Your task to perform on an android device: uninstall "PlayWell" Image 0: 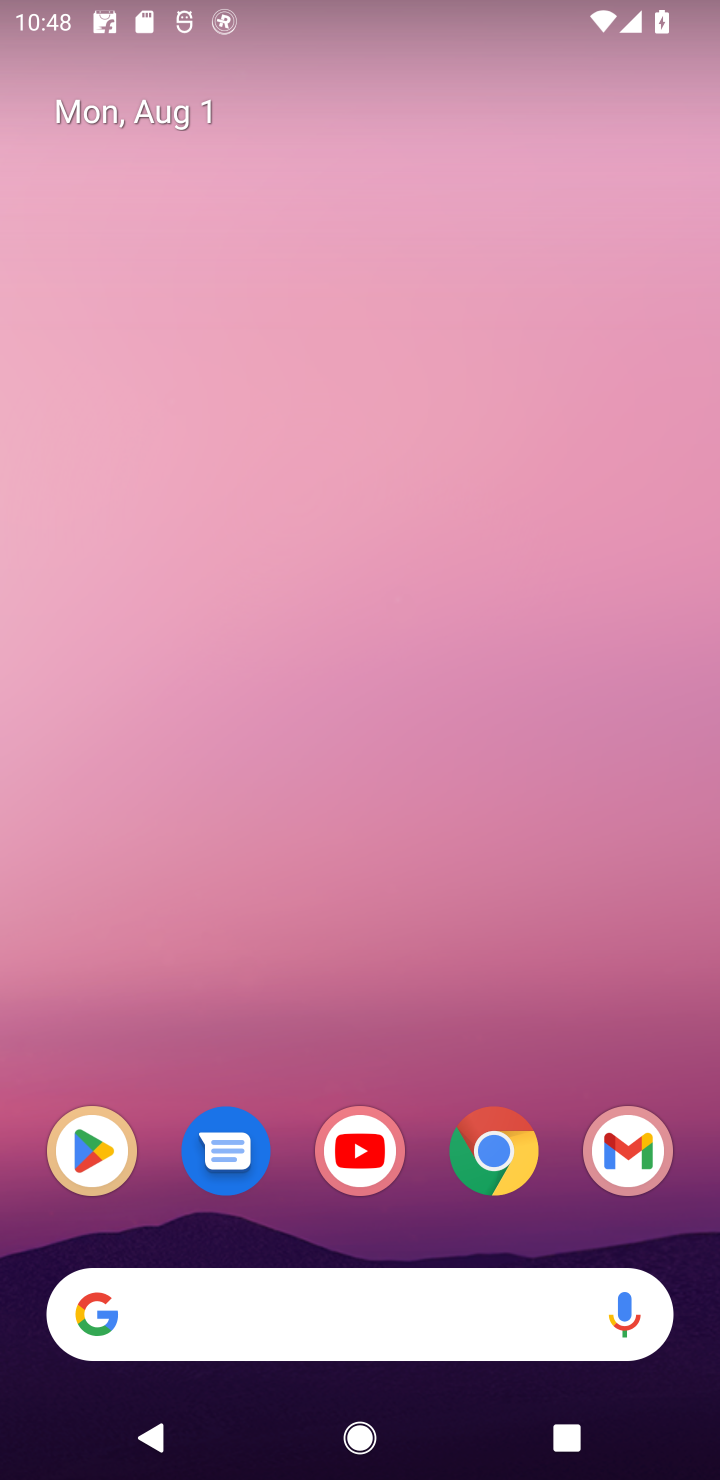
Step 0: click (115, 1148)
Your task to perform on an android device: uninstall "PlayWell" Image 1: 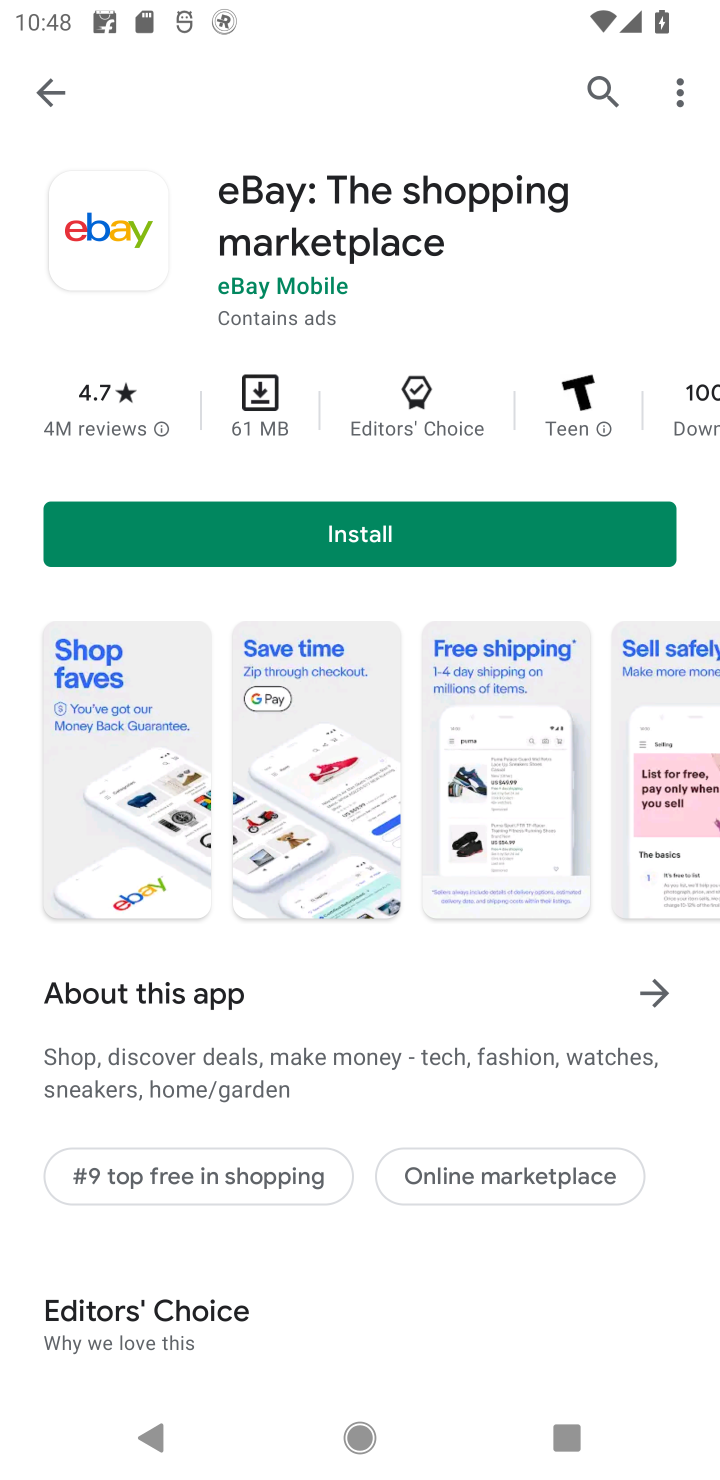
Step 1: click (595, 89)
Your task to perform on an android device: uninstall "PlayWell" Image 2: 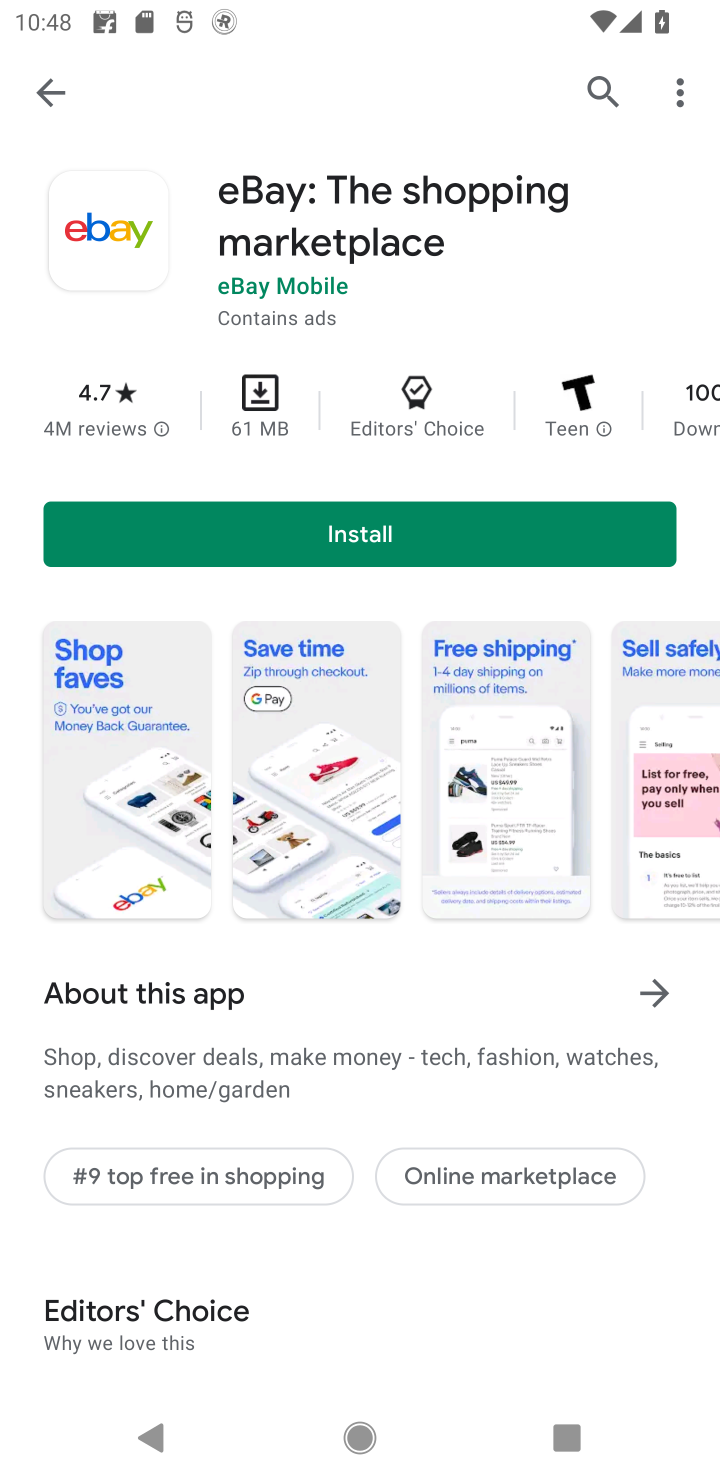
Step 2: click (598, 78)
Your task to perform on an android device: uninstall "PlayWell" Image 3: 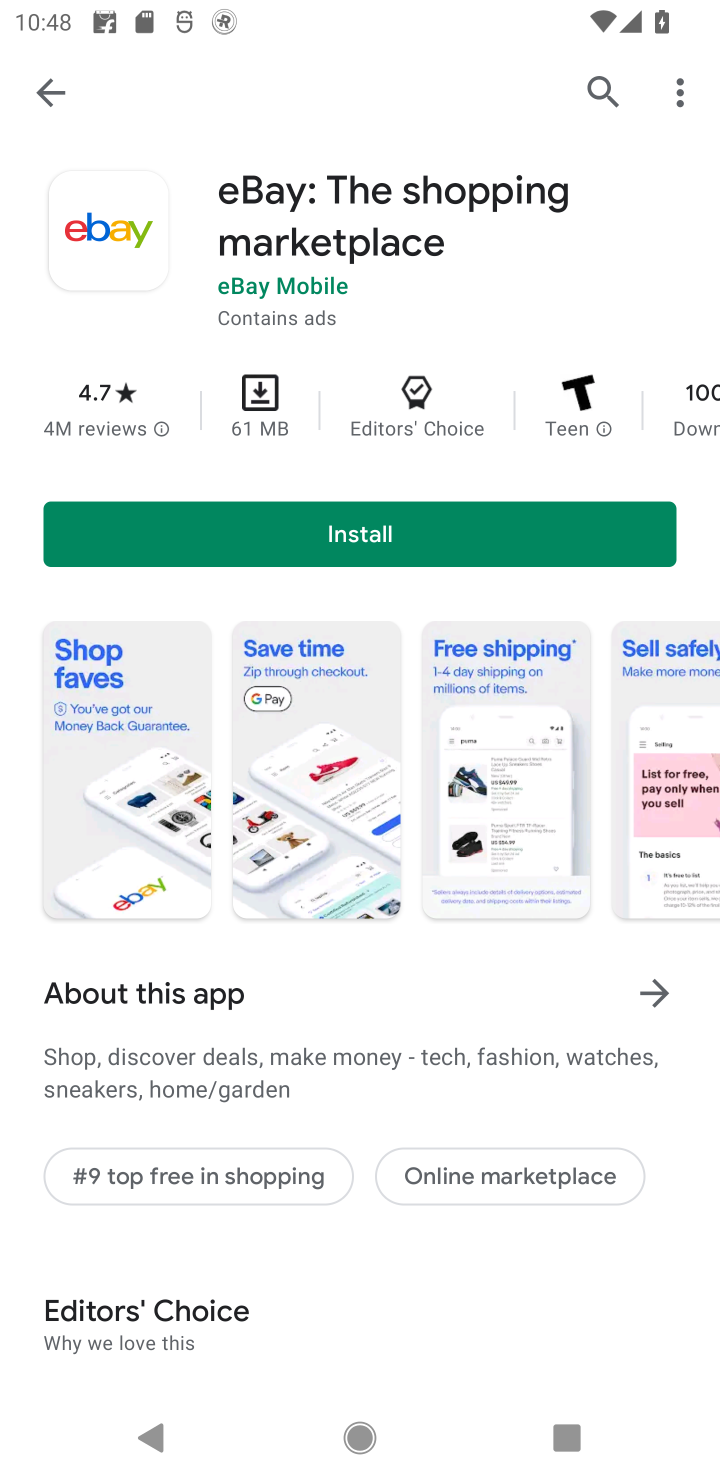
Step 3: click (598, 95)
Your task to perform on an android device: uninstall "PlayWell" Image 4: 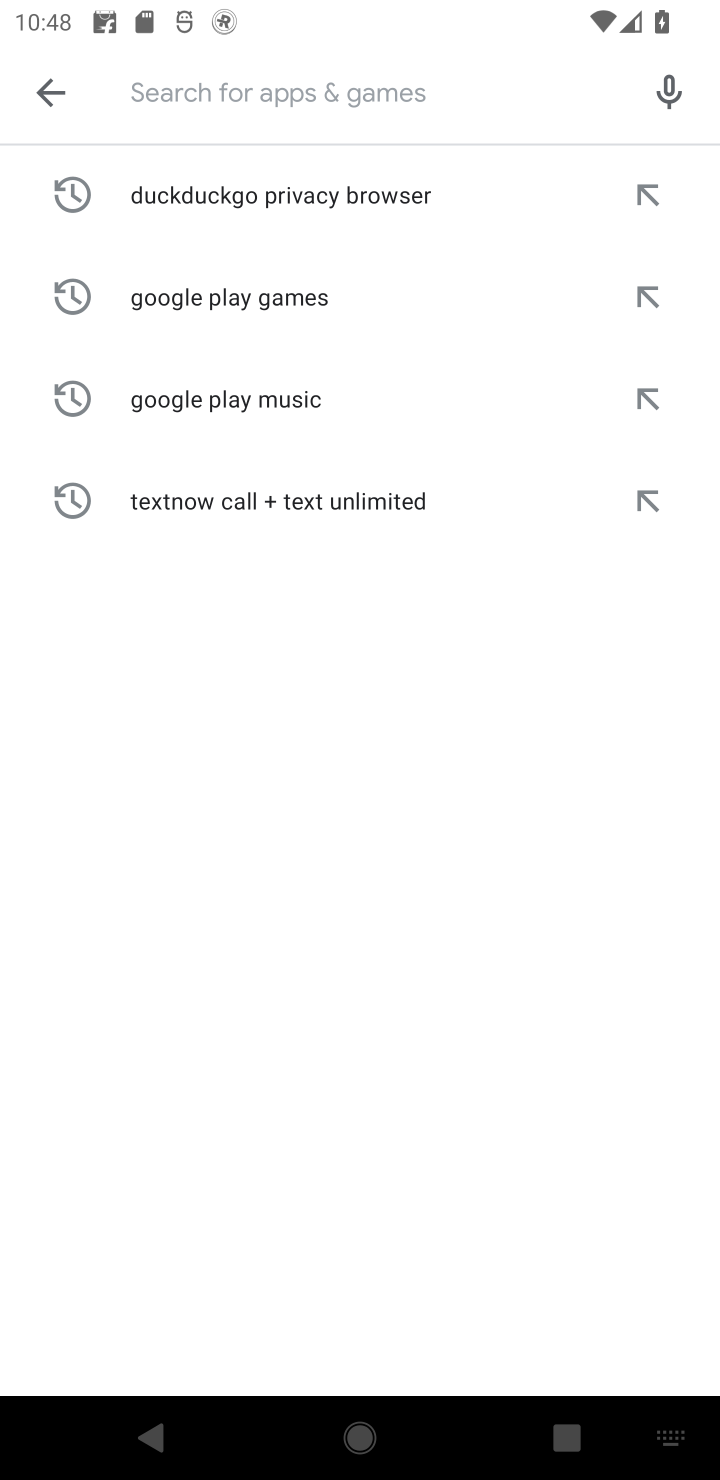
Step 4: type "PlayWell"
Your task to perform on an android device: uninstall "PlayWell" Image 5: 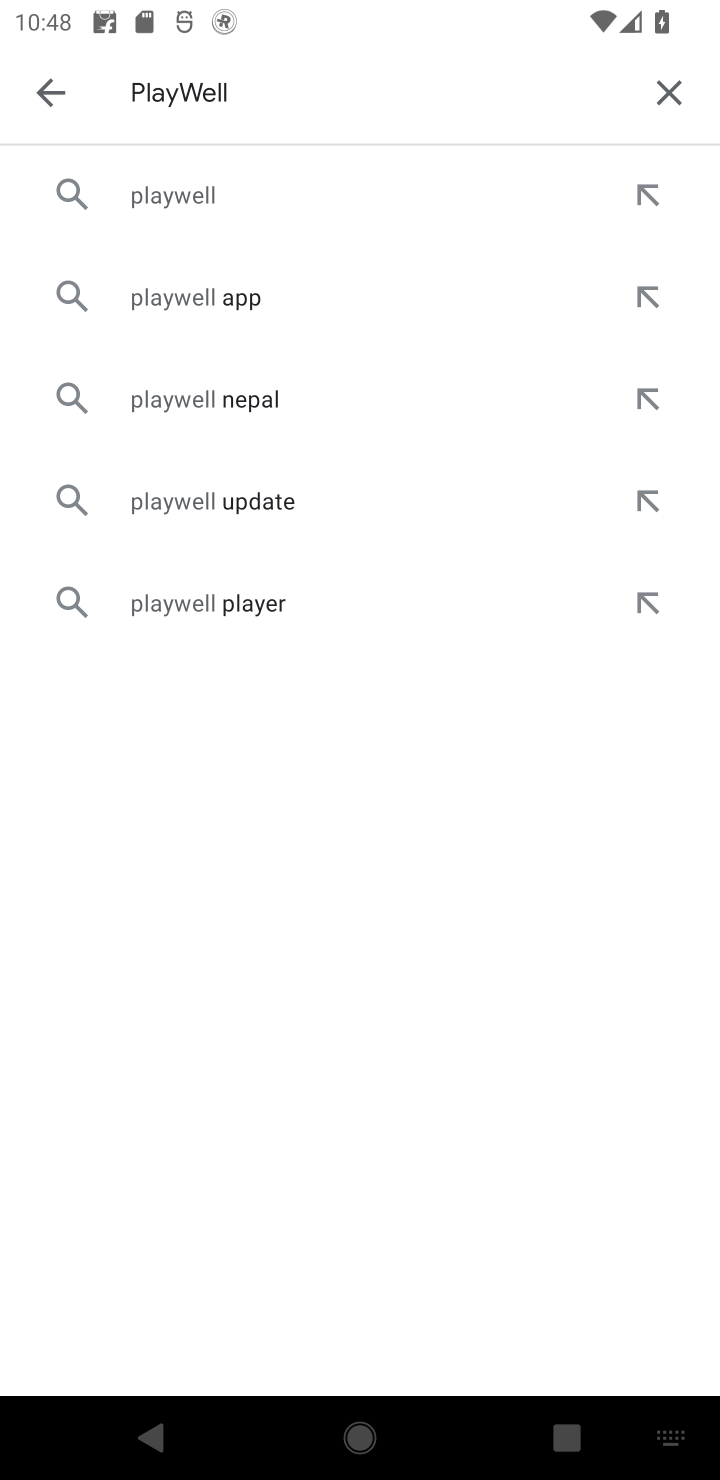
Step 5: click (228, 182)
Your task to perform on an android device: uninstall "PlayWell" Image 6: 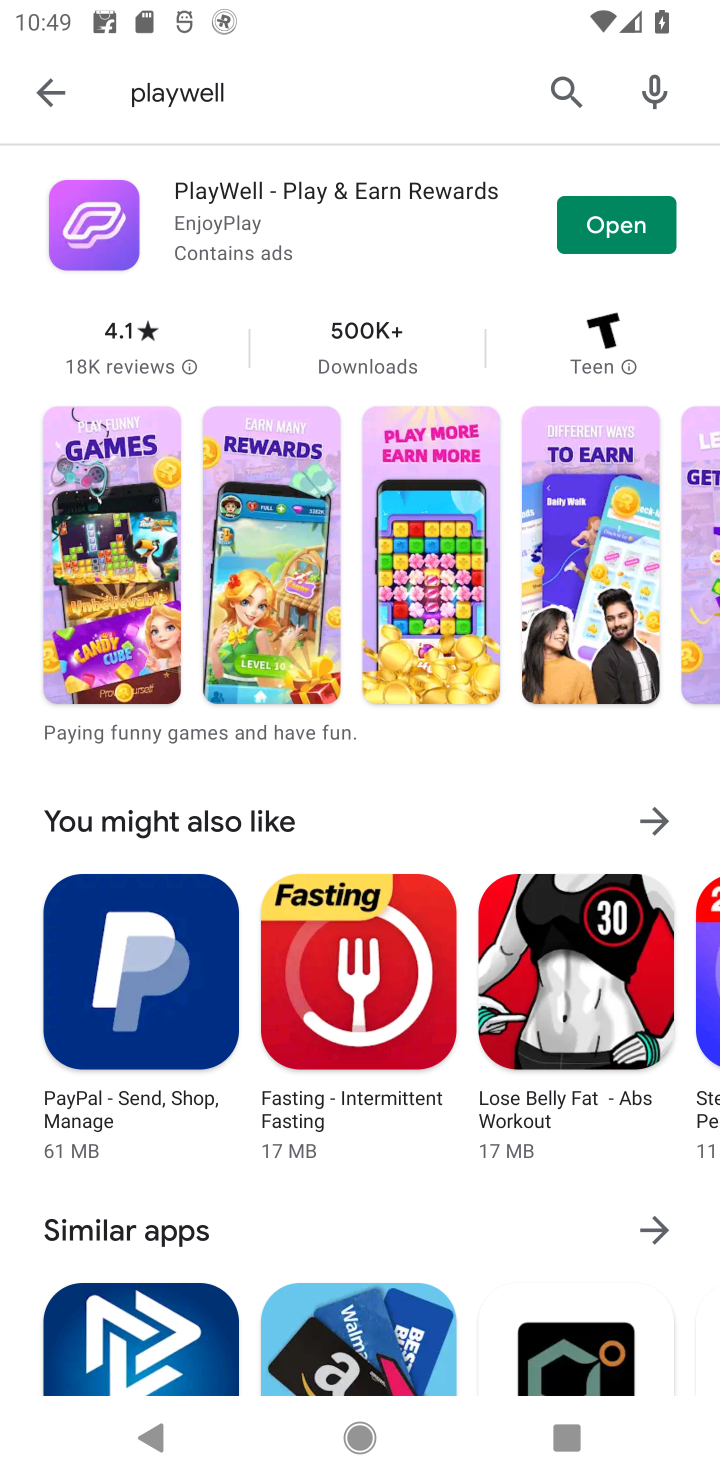
Step 6: click (291, 245)
Your task to perform on an android device: uninstall "PlayWell" Image 7: 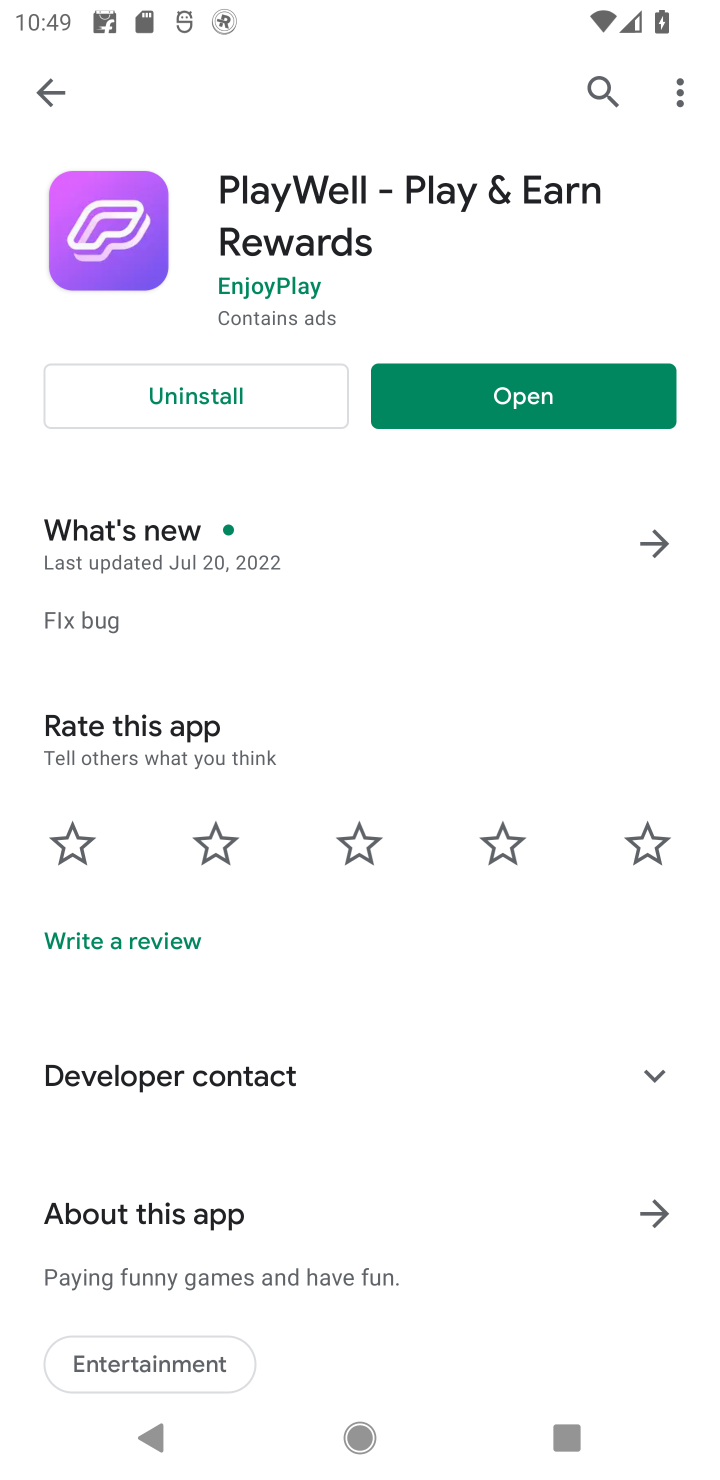
Step 7: click (259, 401)
Your task to perform on an android device: uninstall "PlayWell" Image 8: 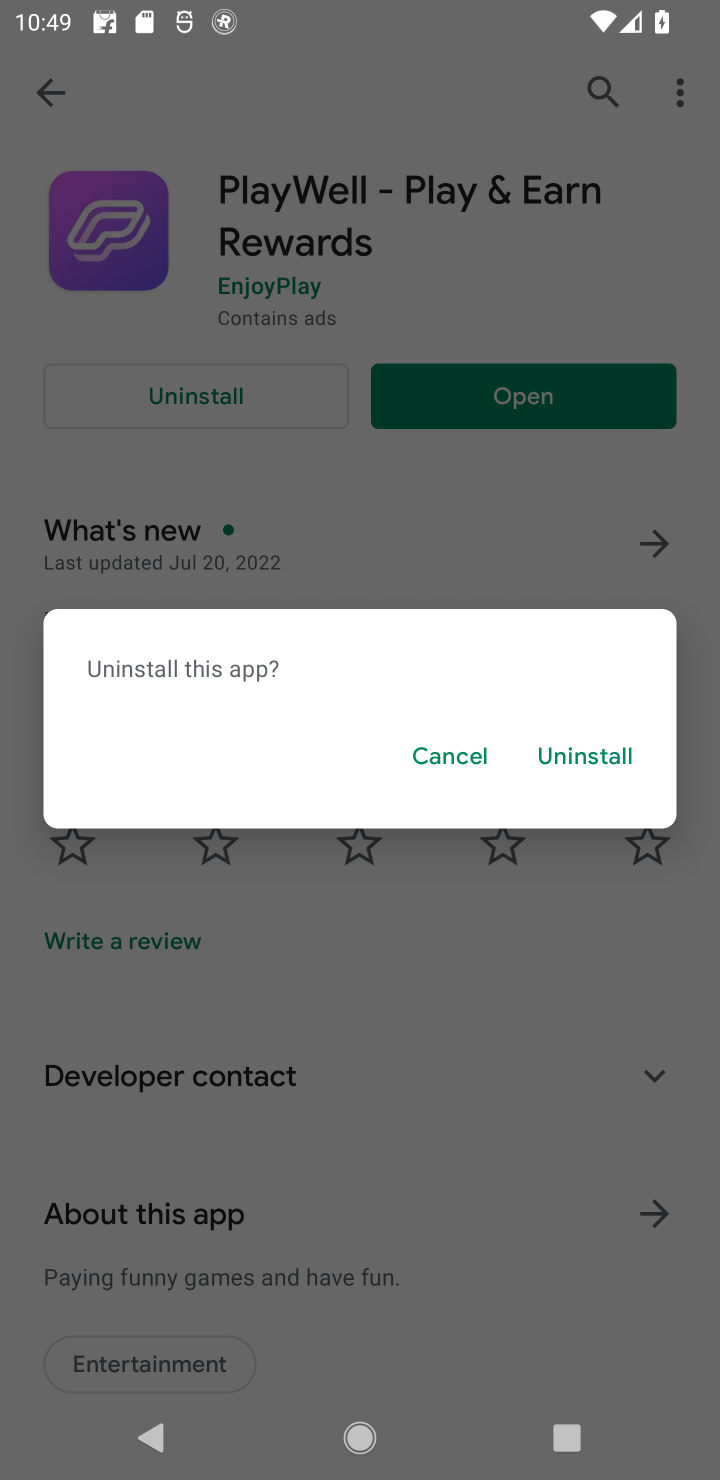
Step 8: click (537, 754)
Your task to perform on an android device: uninstall "PlayWell" Image 9: 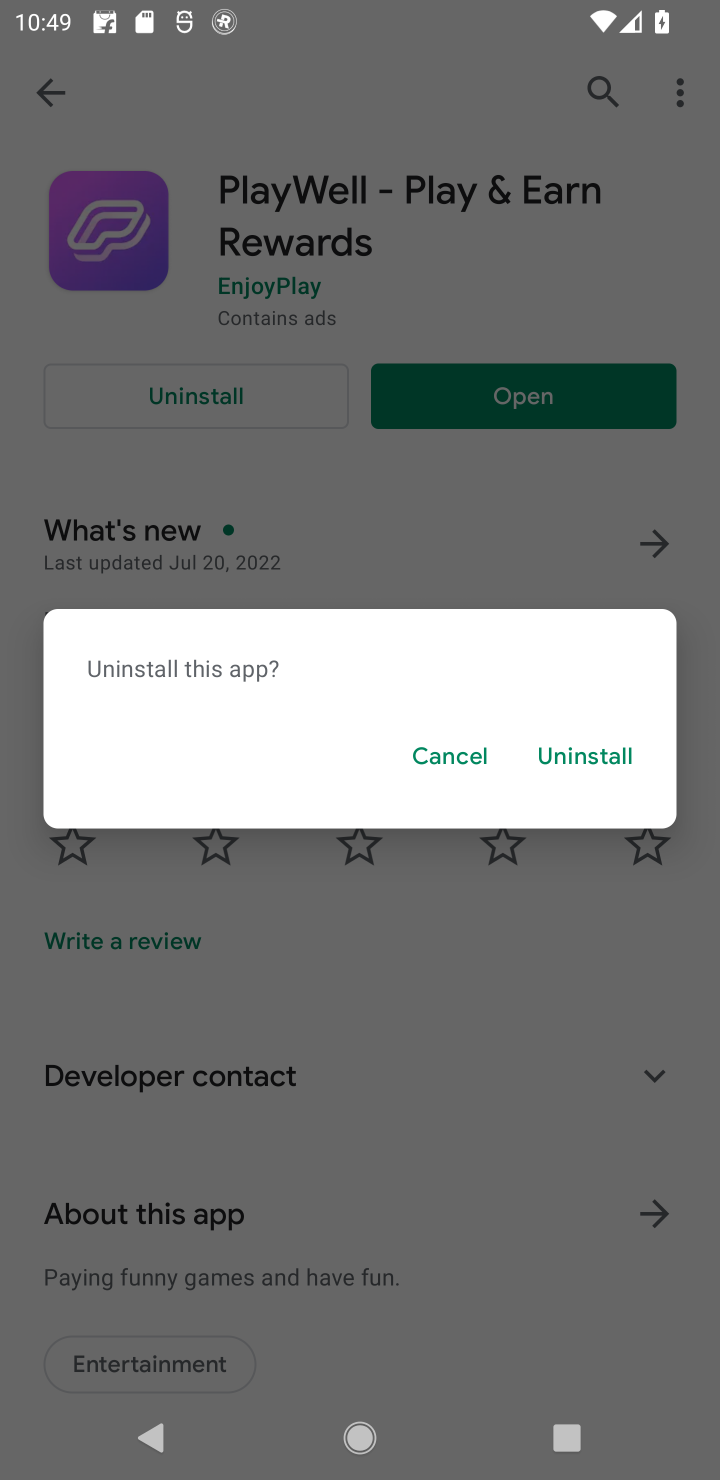
Step 9: click (589, 758)
Your task to perform on an android device: uninstall "PlayWell" Image 10: 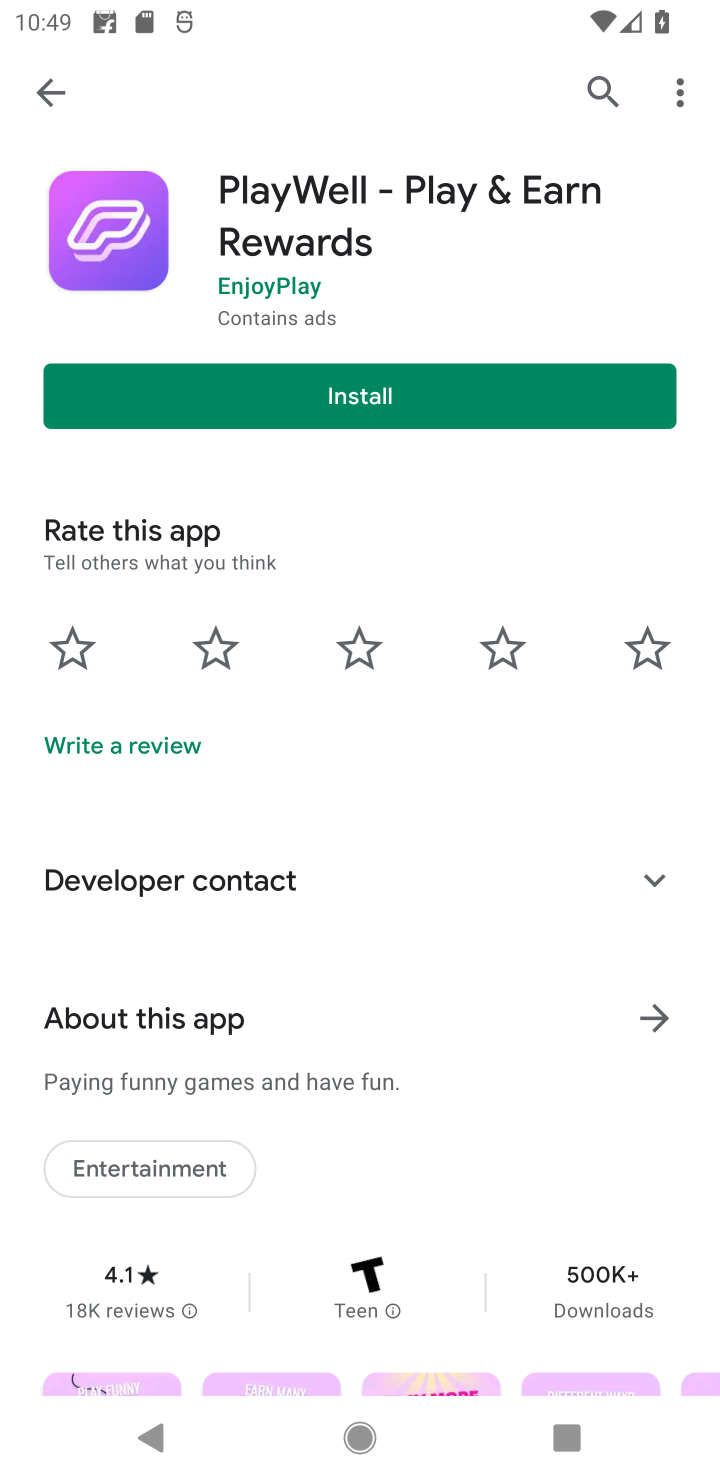
Step 10: task complete